Your task to perform on an android device: turn on notifications settings in the gmail app Image 0: 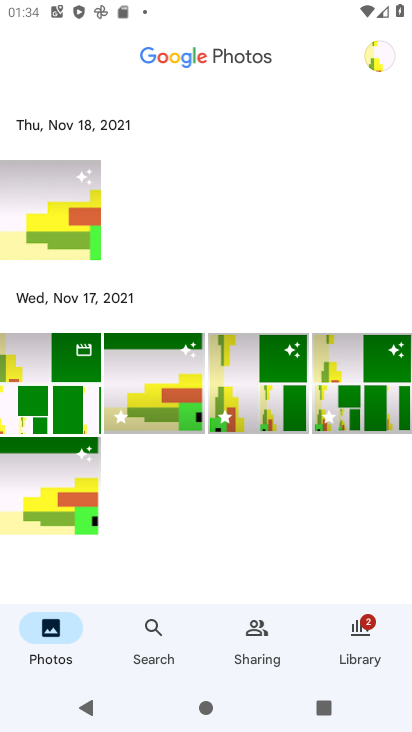
Step 0: press home button
Your task to perform on an android device: turn on notifications settings in the gmail app Image 1: 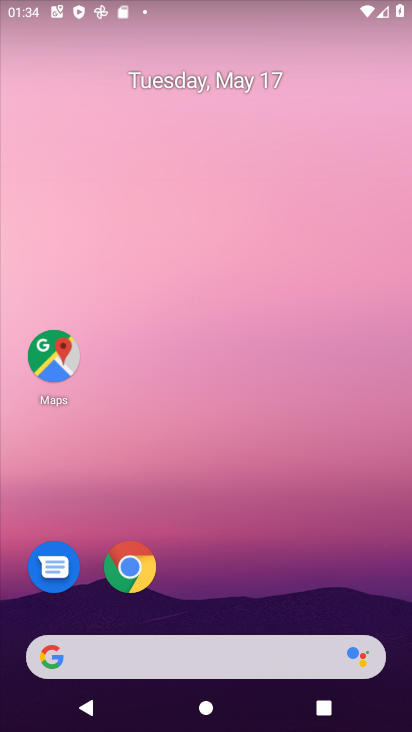
Step 1: drag from (391, 629) to (281, 57)
Your task to perform on an android device: turn on notifications settings in the gmail app Image 2: 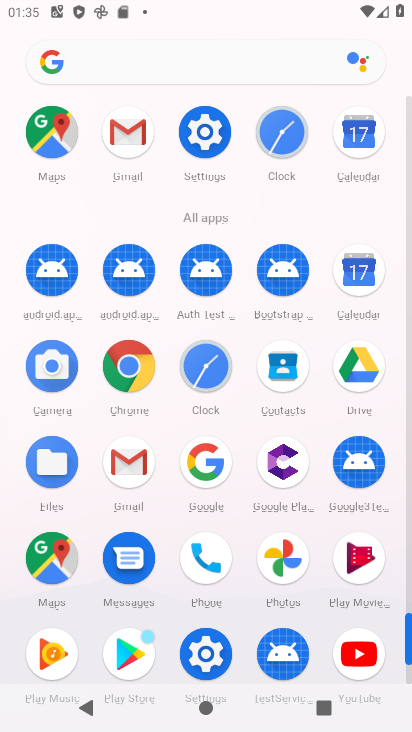
Step 2: click (131, 463)
Your task to perform on an android device: turn on notifications settings in the gmail app Image 3: 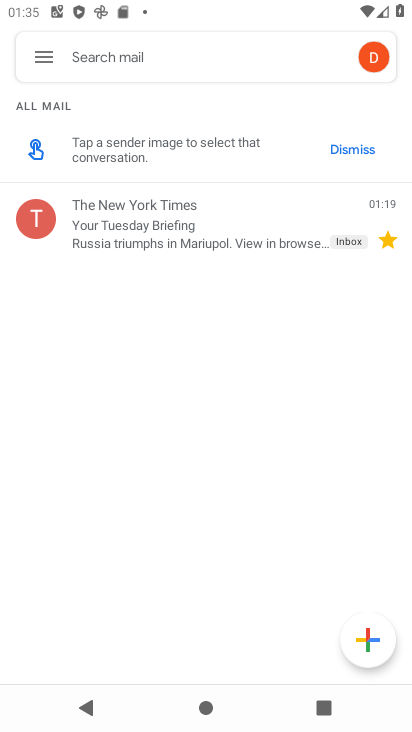
Step 3: click (40, 58)
Your task to perform on an android device: turn on notifications settings in the gmail app Image 4: 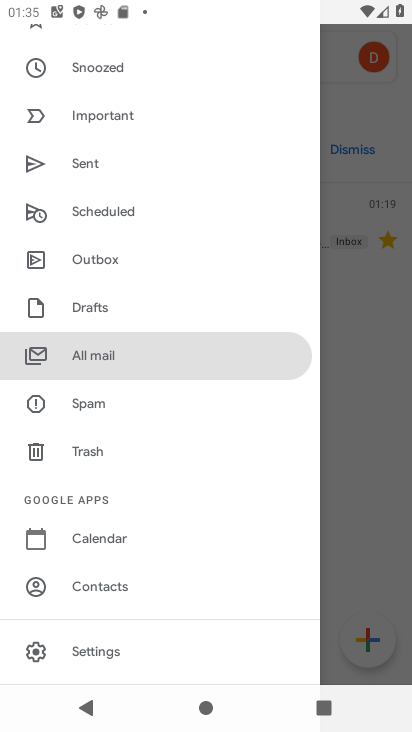
Step 4: drag from (199, 600) to (215, 225)
Your task to perform on an android device: turn on notifications settings in the gmail app Image 5: 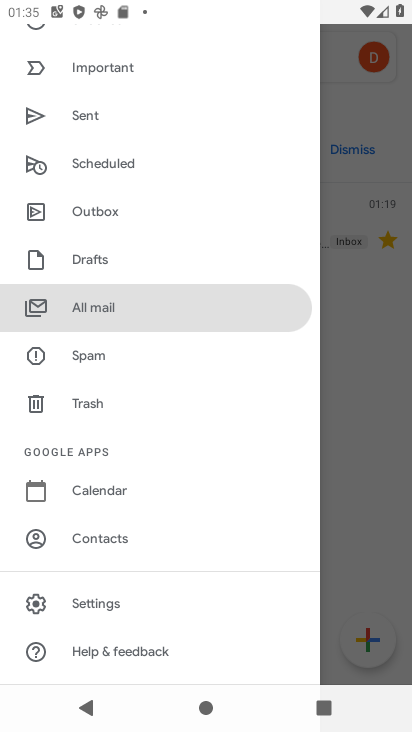
Step 5: click (108, 595)
Your task to perform on an android device: turn on notifications settings in the gmail app Image 6: 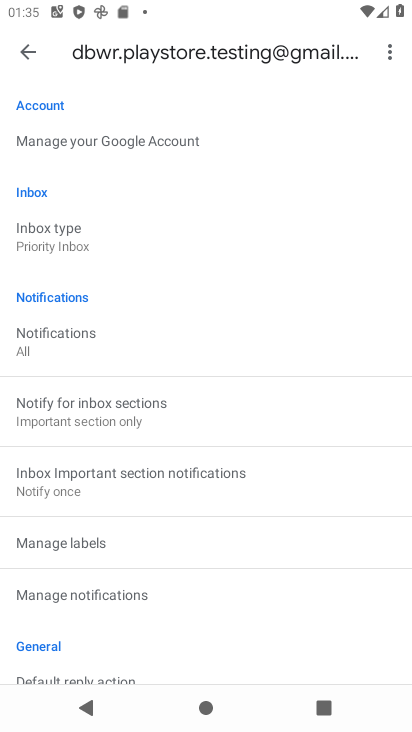
Step 6: click (93, 590)
Your task to perform on an android device: turn on notifications settings in the gmail app Image 7: 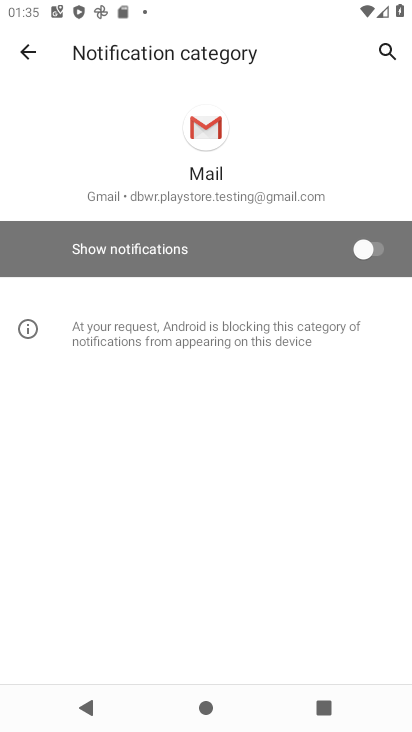
Step 7: click (375, 237)
Your task to perform on an android device: turn on notifications settings in the gmail app Image 8: 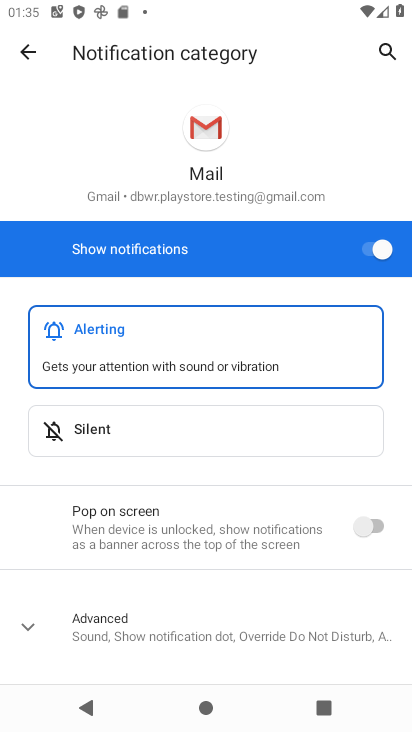
Step 8: task complete